Your task to perform on an android device: Open calendar and show me the second week of next month Image 0: 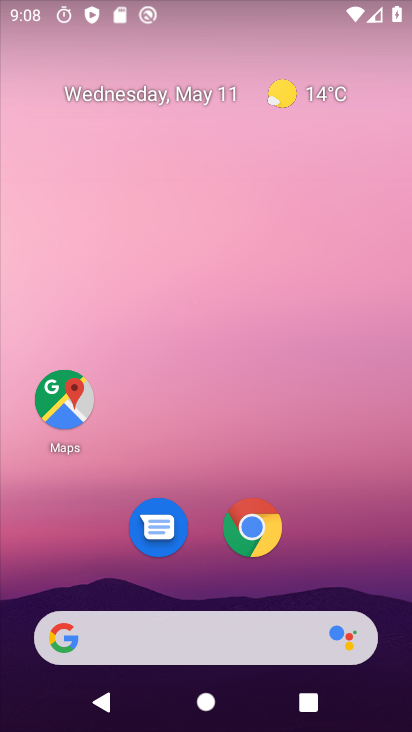
Step 0: drag from (241, 586) to (221, 120)
Your task to perform on an android device: Open calendar and show me the second week of next month Image 1: 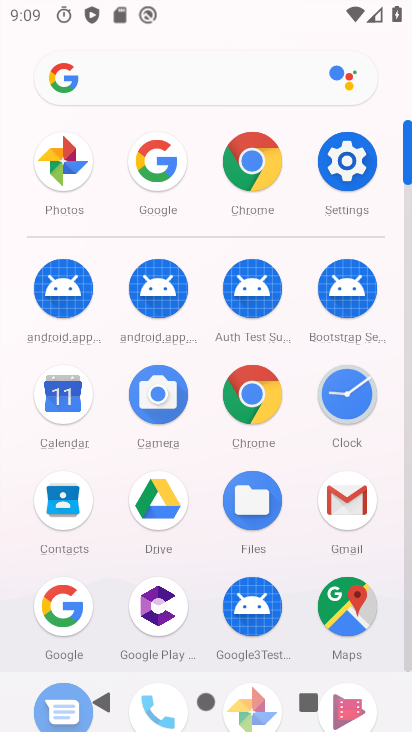
Step 1: drag from (214, 506) to (252, 297)
Your task to perform on an android device: Open calendar and show me the second week of next month Image 2: 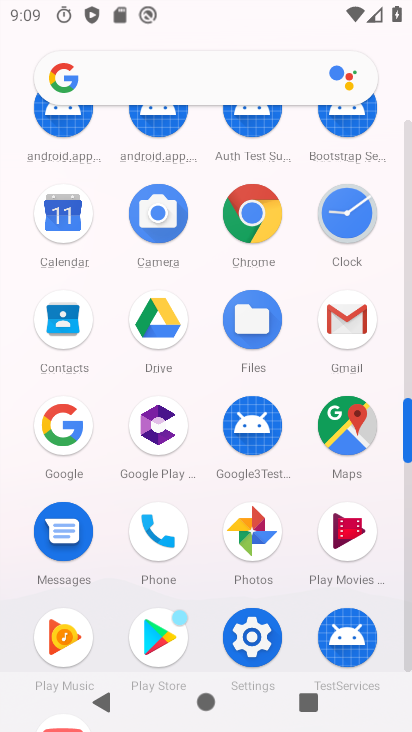
Step 2: click (74, 237)
Your task to perform on an android device: Open calendar and show me the second week of next month Image 3: 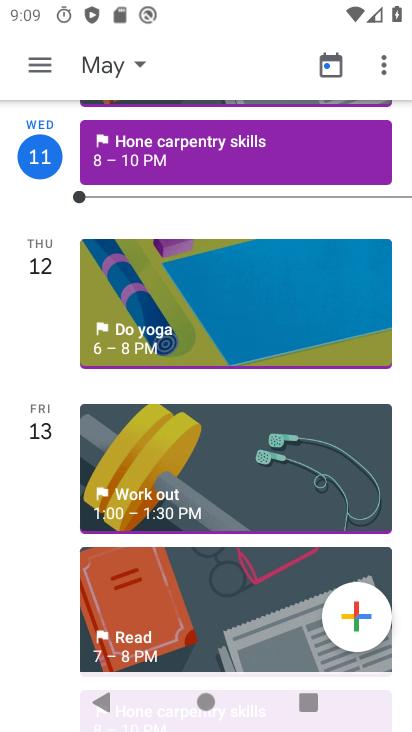
Step 3: click (139, 65)
Your task to perform on an android device: Open calendar and show me the second week of next month Image 4: 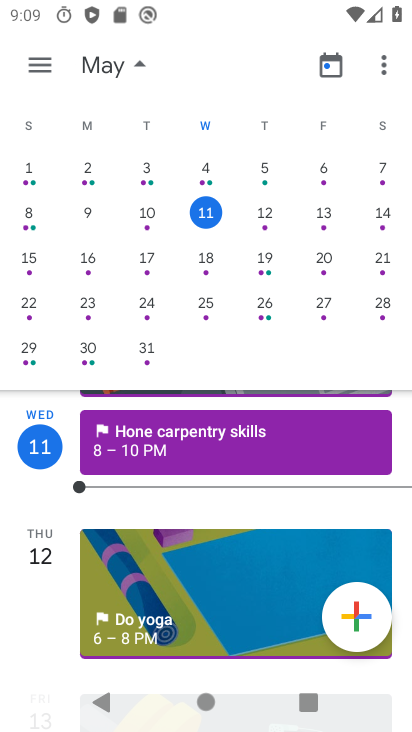
Step 4: drag from (316, 216) to (38, 303)
Your task to perform on an android device: Open calendar and show me the second week of next month Image 5: 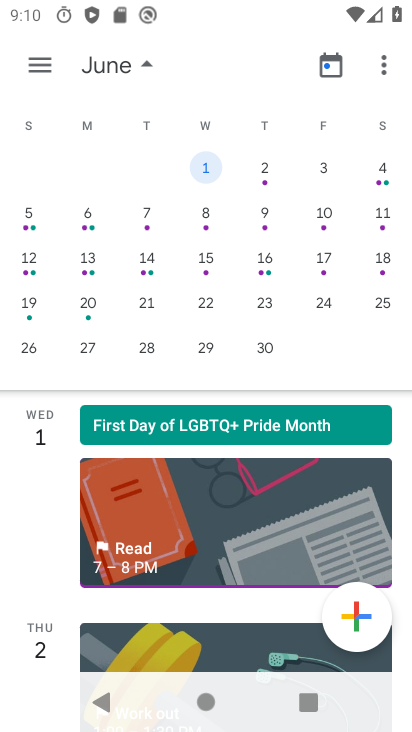
Step 5: click (29, 271)
Your task to perform on an android device: Open calendar and show me the second week of next month Image 6: 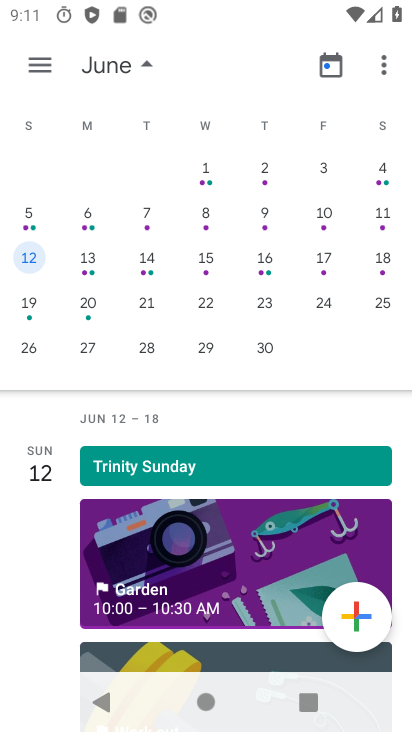
Step 6: task complete